Your task to perform on an android device: check battery use Image 0: 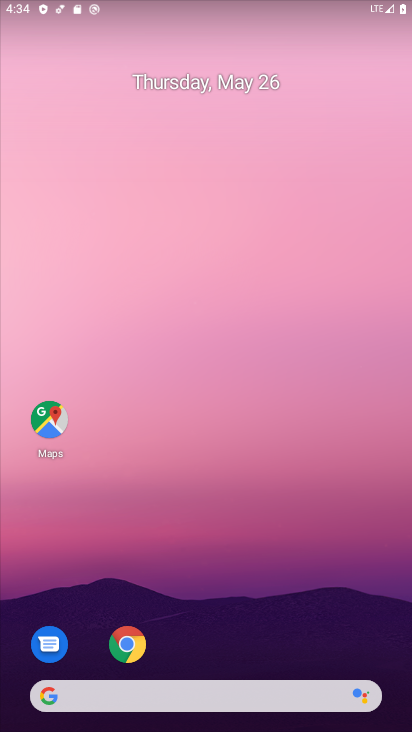
Step 0: drag from (225, 431) to (237, 39)
Your task to perform on an android device: check battery use Image 1: 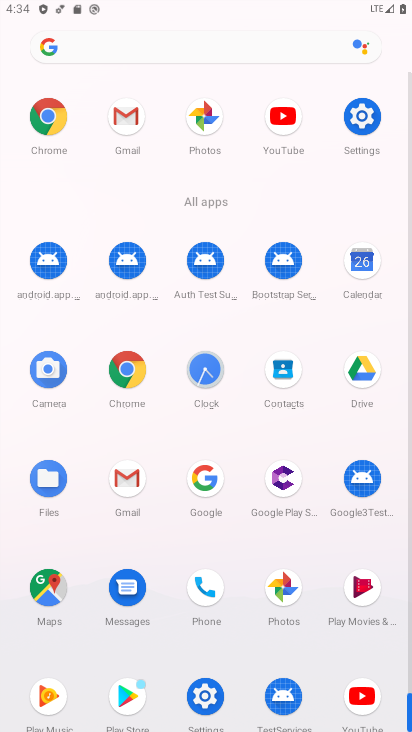
Step 1: drag from (9, 645) to (7, 329)
Your task to perform on an android device: check battery use Image 2: 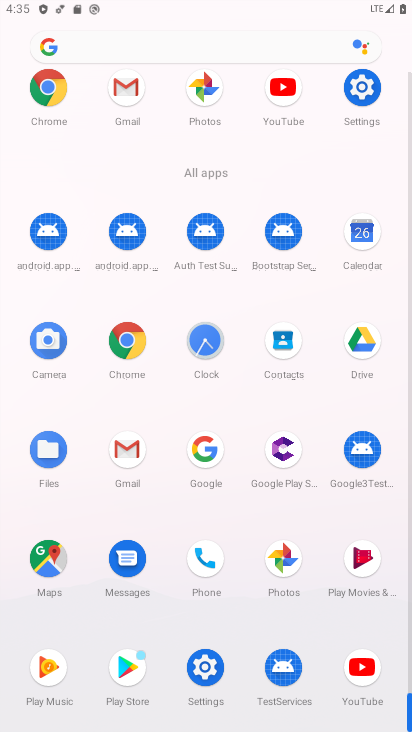
Step 2: click (199, 666)
Your task to perform on an android device: check battery use Image 3: 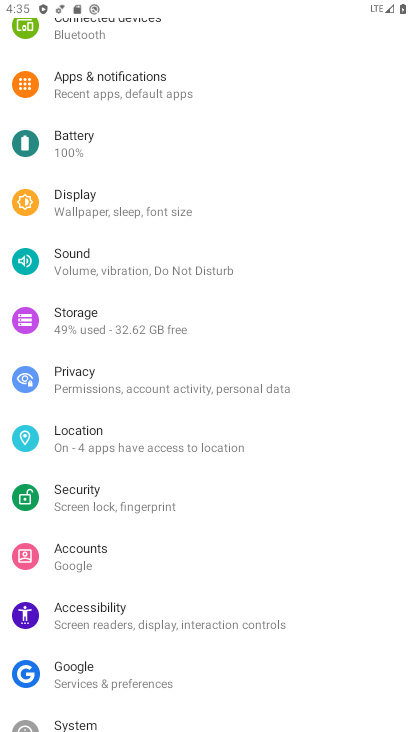
Step 3: drag from (193, 242) to (233, 562)
Your task to perform on an android device: check battery use Image 4: 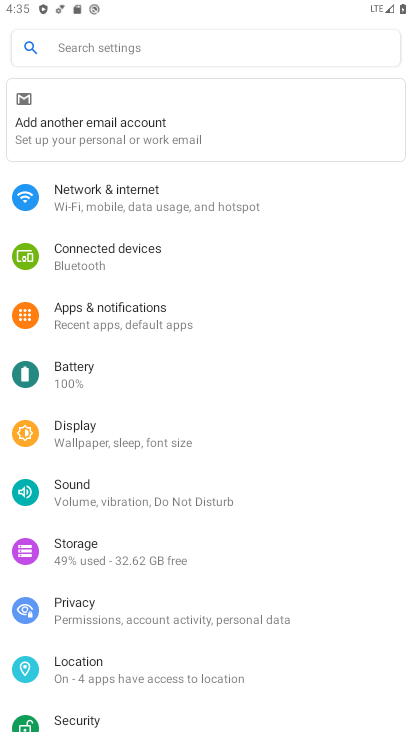
Step 4: drag from (191, 582) to (217, 238)
Your task to perform on an android device: check battery use Image 5: 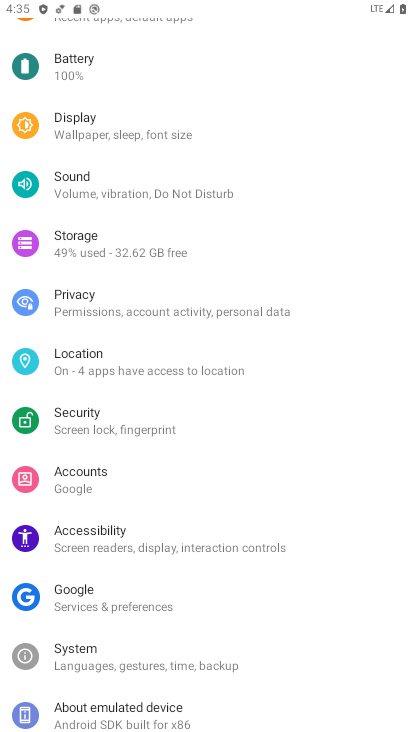
Step 5: drag from (175, 114) to (176, 255)
Your task to perform on an android device: check battery use Image 6: 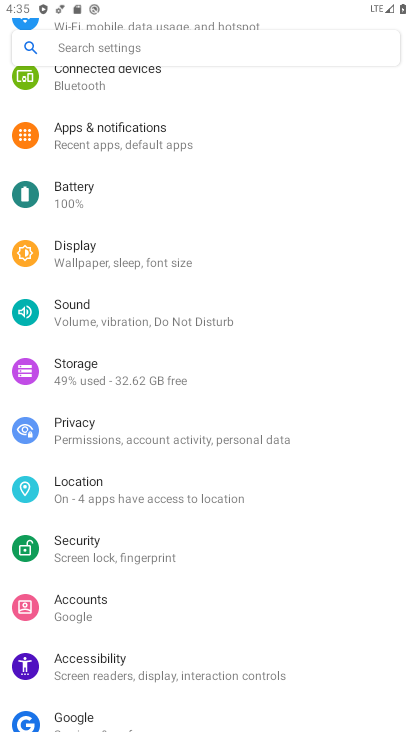
Step 6: click (99, 204)
Your task to perform on an android device: check battery use Image 7: 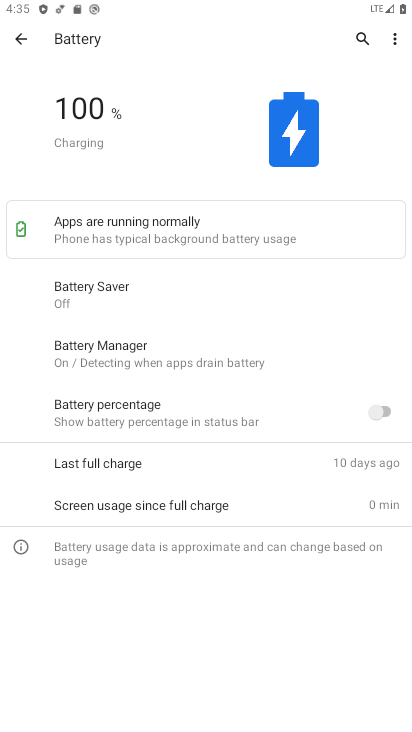
Step 7: task complete